Your task to perform on an android device: Open privacy settings Image 0: 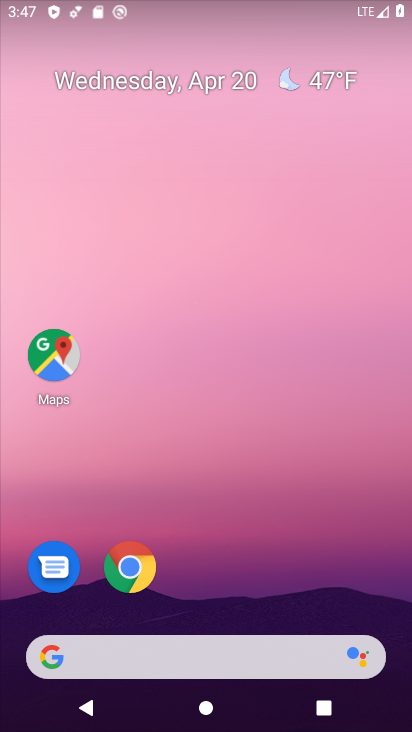
Step 0: drag from (336, 526) to (260, 10)
Your task to perform on an android device: Open privacy settings Image 1: 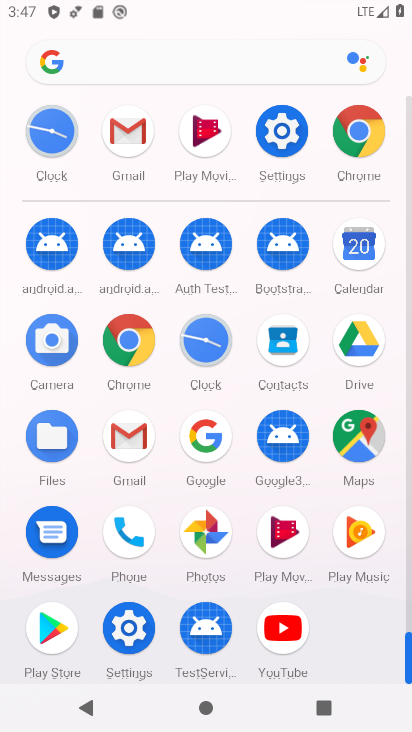
Step 1: click (357, 127)
Your task to perform on an android device: Open privacy settings Image 2: 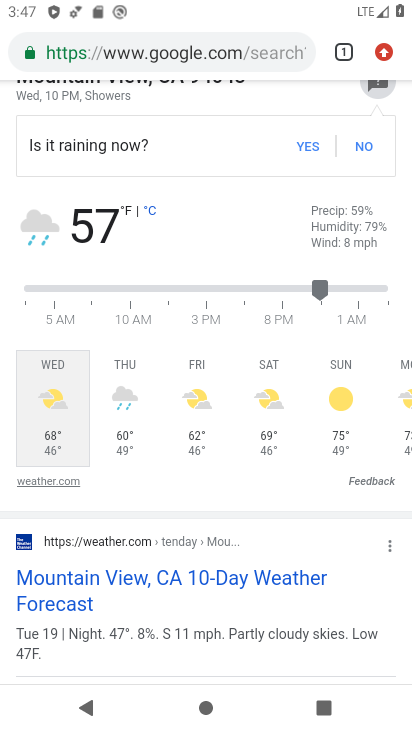
Step 2: drag from (387, 48) to (206, 609)
Your task to perform on an android device: Open privacy settings Image 3: 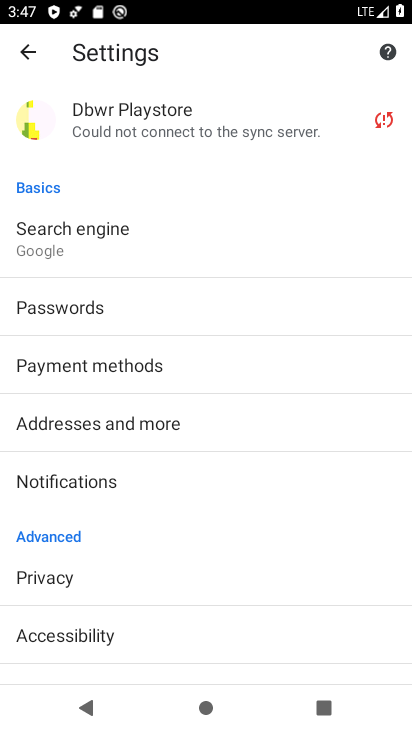
Step 3: click (59, 568)
Your task to perform on an android device: Open privacy settings Image 4: 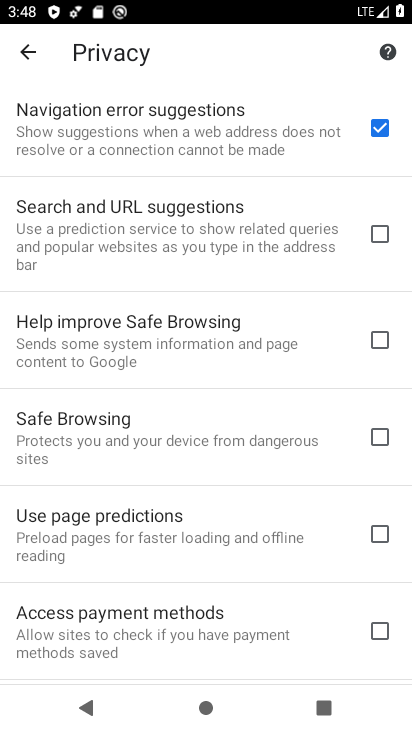
Step 4: task complete